Your task to perform on an android device: Open Youtube and go to "Your channel" Image 0: 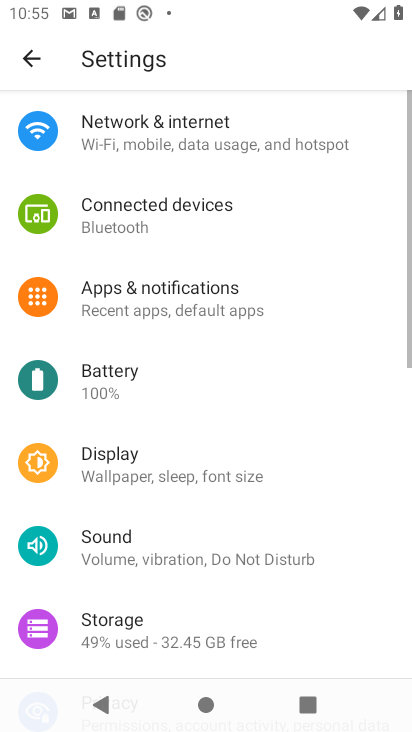
Step 0: press home button
Your task to perform on an android device: Open Youtube and go to "Your channel" Image 1: 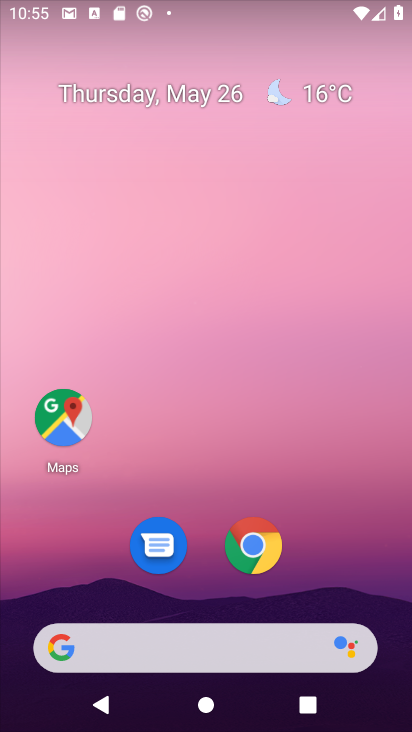
Step 1: drag from (318, 588) to (258, 147)
Your task to perform on an android device: Open Youtube and go to "Your channel" Image 2: 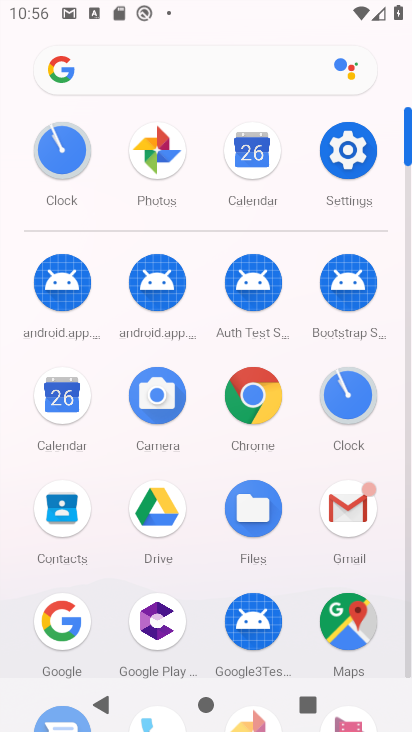
Step 2: drag from (390, 670) to (346, 329)
Your task to perform on an android device: Open Youtube and go to "Your channel" Image 3: 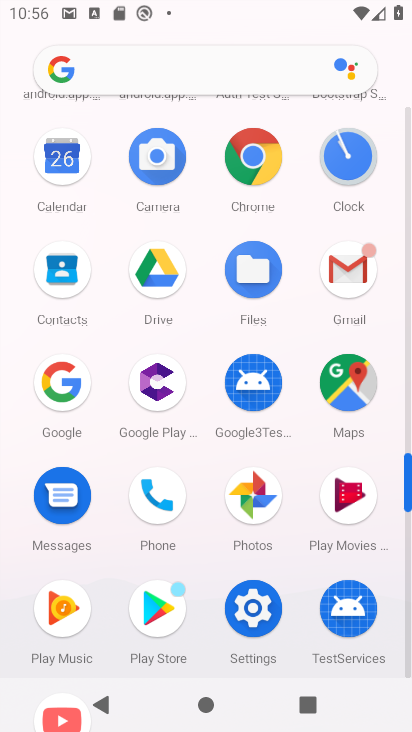
Step 3: click (56, 726)
Your task to perform on an android device: Open Youtube and go to "Your channel" Image 4: 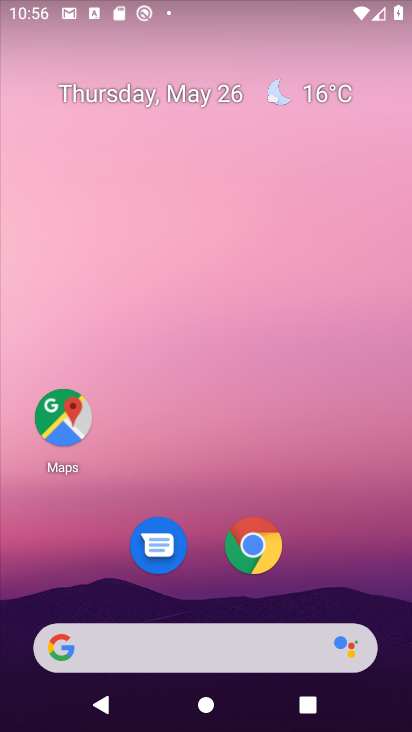
Step 4: drag from (340, 613) to (340, 147)
Your task to perform on an android device: Open Youtube and go to "Your channel" Image 5: 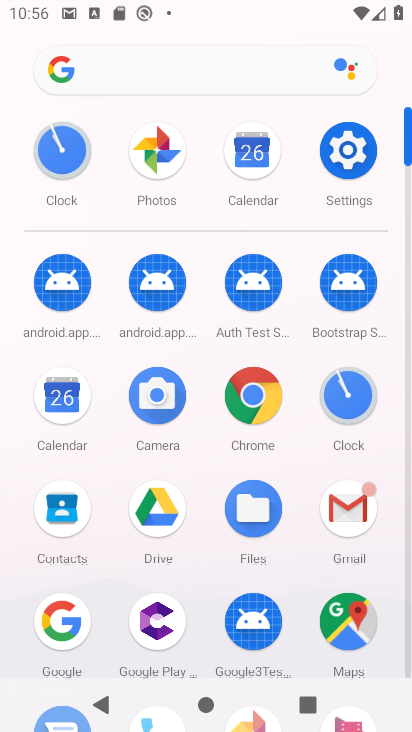
Step 5: drag from (379, 678) to (307, 138)
Your task to perform on an android device: Open Youtube and go to "Your channel" Image 6: 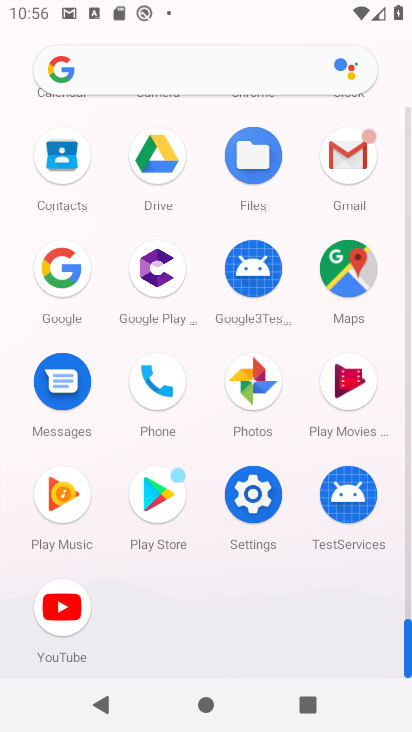
Step 6: click (64, 623)
Your task to perform on an android device: Open Youtube and go to "Your channel" Image 7: 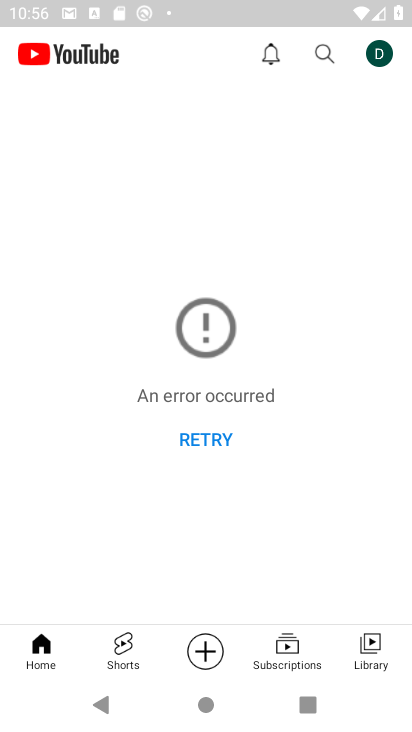
Step 7: click (205, 438)
Your task to perform on an android device: Open Youtube and go to "Your channel" Image 8: 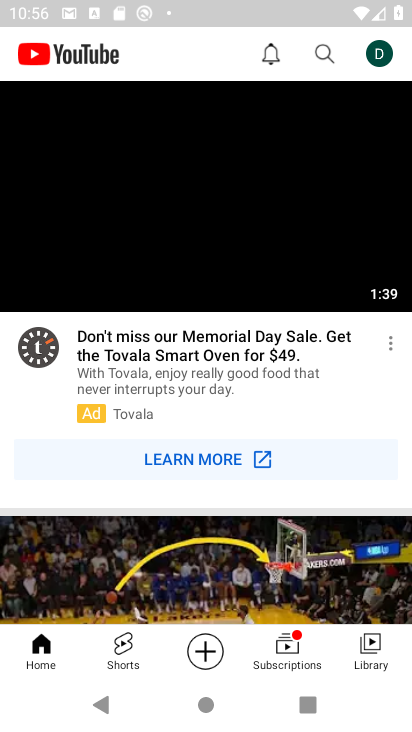
Step 8: click (385, 60)
Your task to perform on an android device: Open Youtube and go to "Your channel" Image 9: 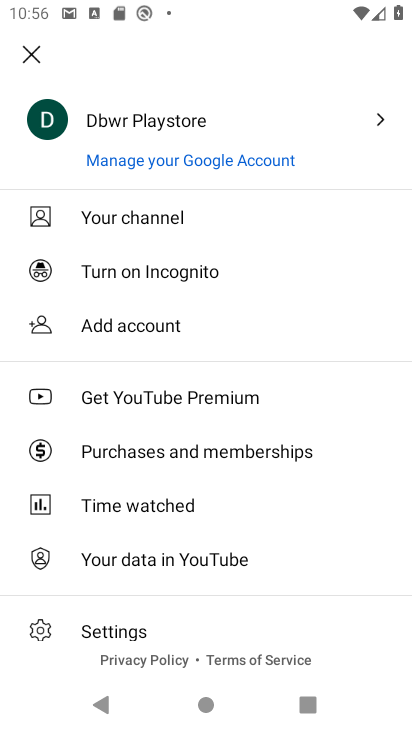
Step 9: click (132, 224)
Your task to perform on an android device: Open Youtube and go to "Your channel" Image 10: 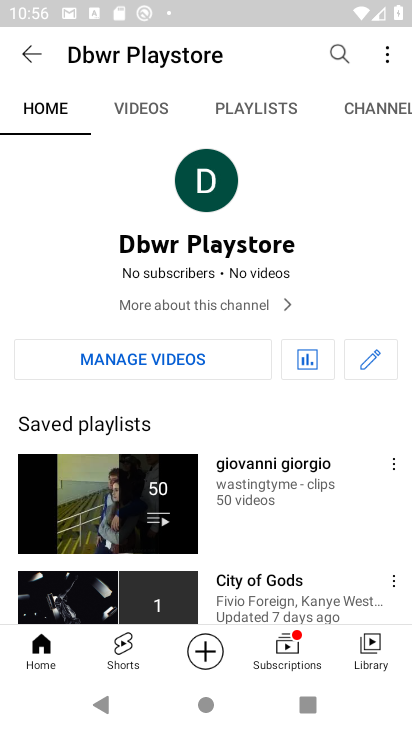
Step 10: task complete